Your task to perform on an android device: Open Reddit.com Image 0: 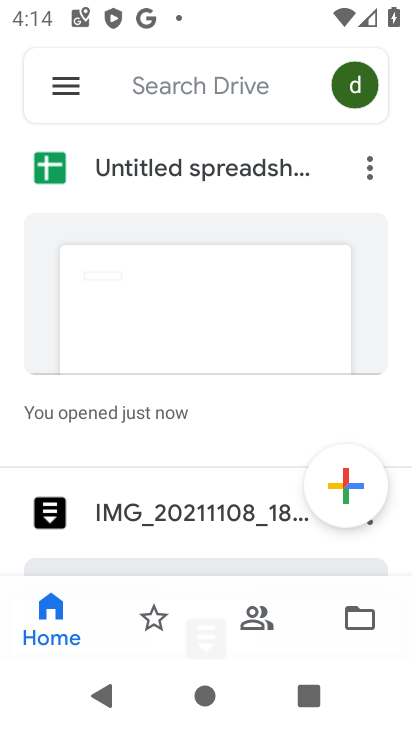
Step 0: press home button
Your task to perform on an android device: Open Reddit.com Image 1: 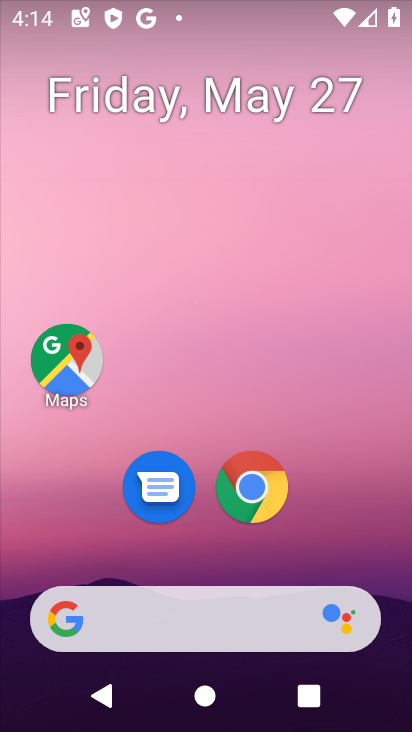
Step 1: click (248, 477)
Your task to perform on an android device: Open Reddit.com Image 2: 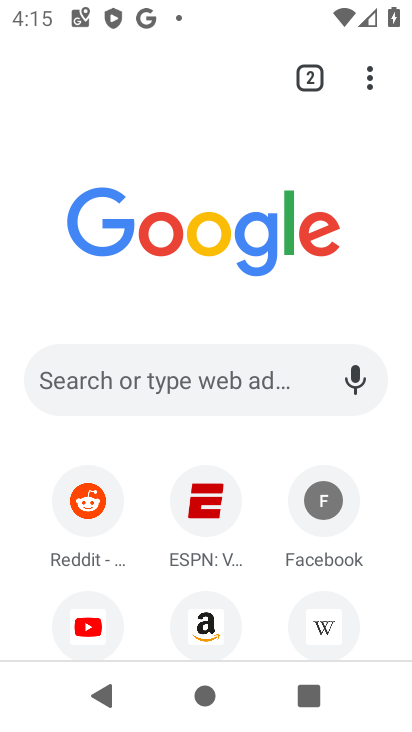
Step 2: click (192, 375)
Your task to perform on an android device: Open Reddit.com Image 3: 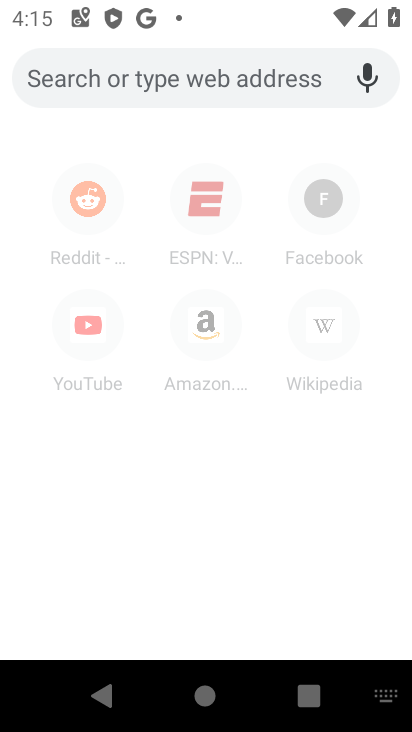
Step 3: type "reddit.com"
Your task to perform on an android device: Open Reddit.com Image 4: 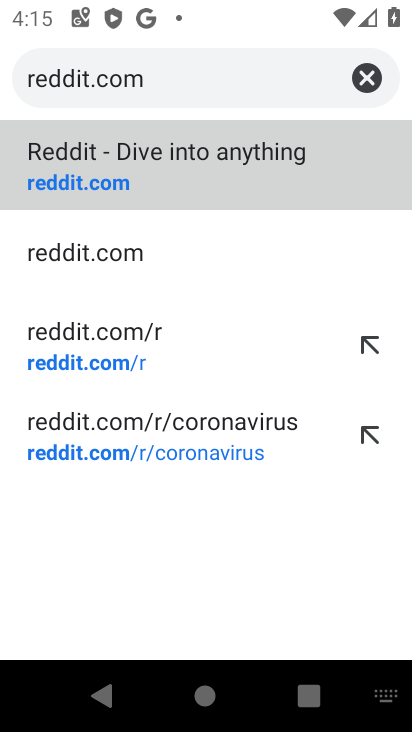
Step 4: click (97, 183)
Your task to perform on an android device: Open Reddit.com Image 5: 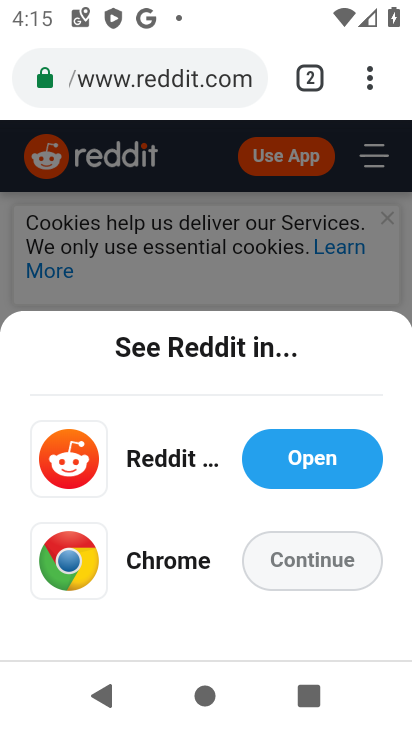
Step 5: task complete